Your task to perform on an android device: turn notification dots on Image 0: 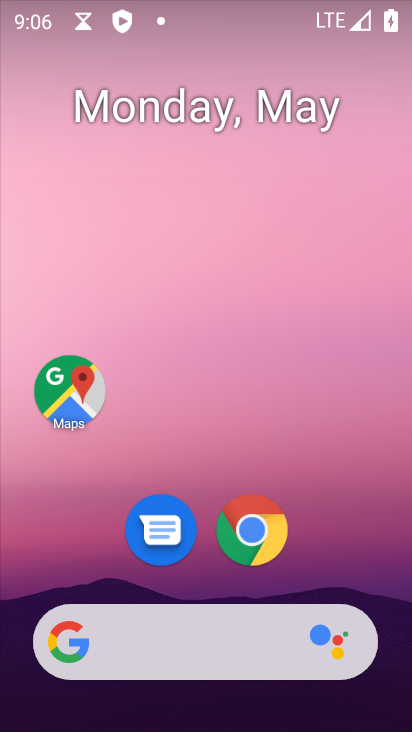
Step 0: drag from (312, 480) to (223, 23)
Your task to perform on an android device: turn notification dots on Image 1: 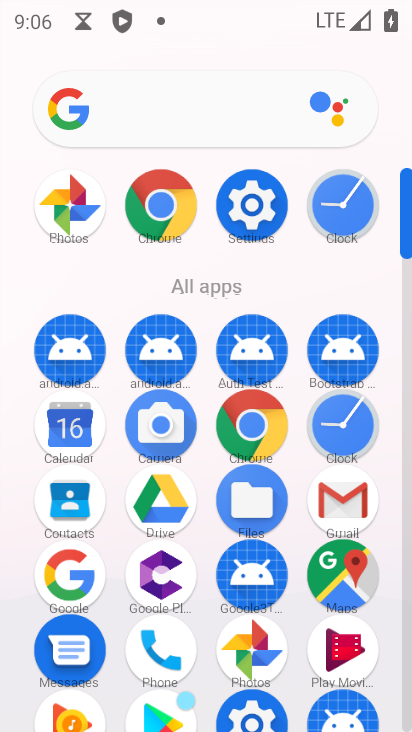
Step 1: click (254, 200)
Your task to perform on an android device: turn notification dots on Image 2: 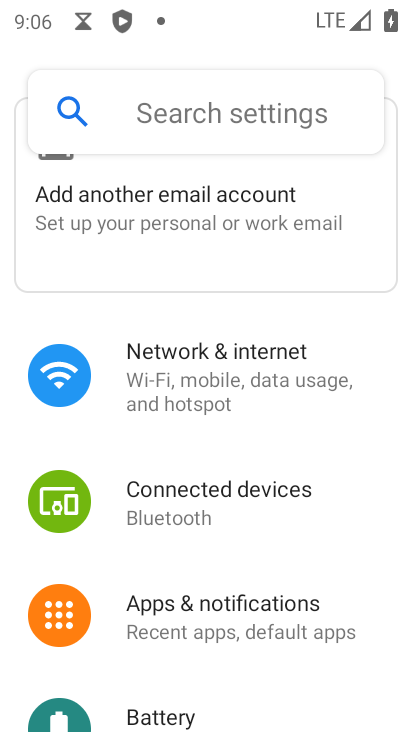
Step 2: click (199, 613)
Your task to perform on an android device: turn notification dots on Image 3: 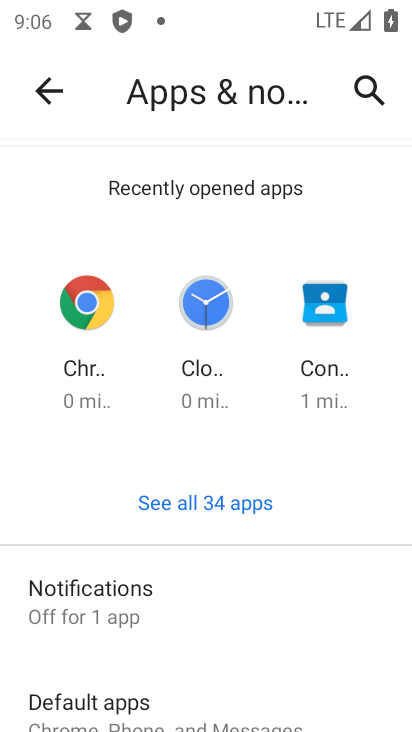
Step 3: click (175, 598)
Your task to perform on an android device: turn notification dots on Image 4: 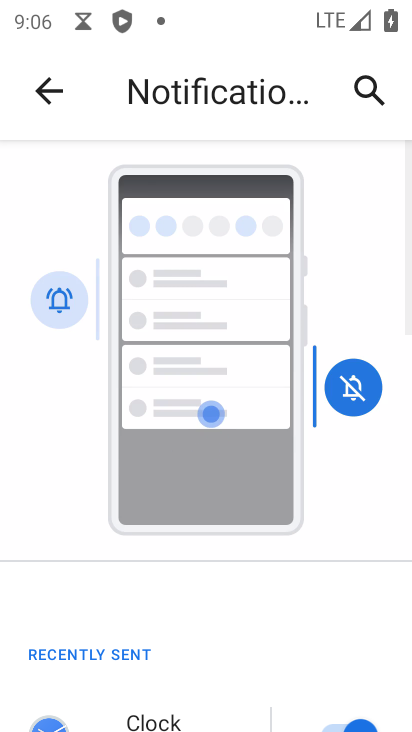
Step 4: drag from (271, 601) to (318, 107)
Your task to perform on an android device: turn notification dots on Image 5: 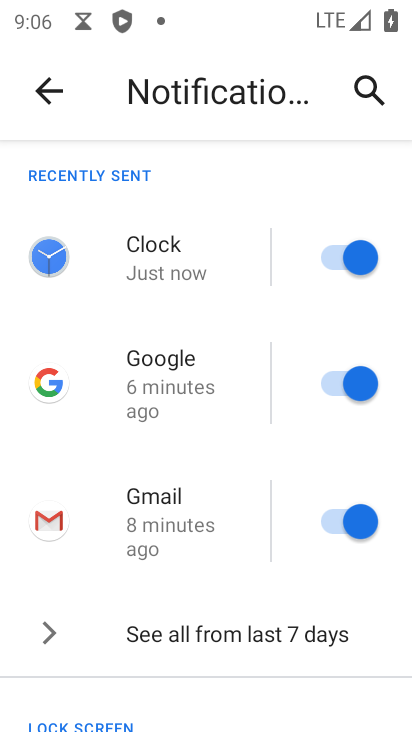
Step 5: drag from (190, 573) to (212, 141)
Your task to perform on an android device: turn notification dots on Image 6: 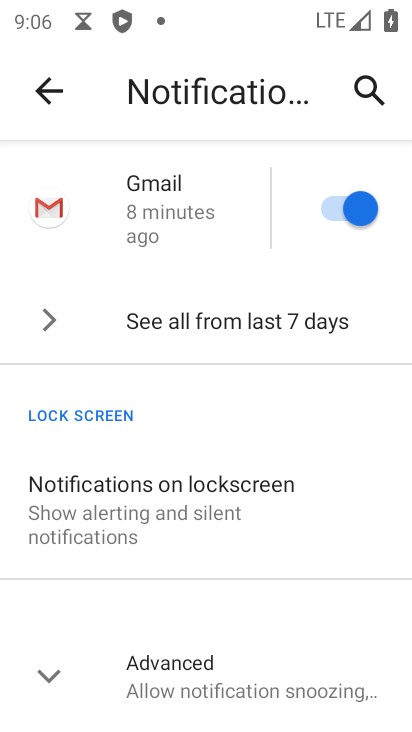
Step 6: click (178, 671)
Your task to perform on an android device: turn notification dots on Image 7: 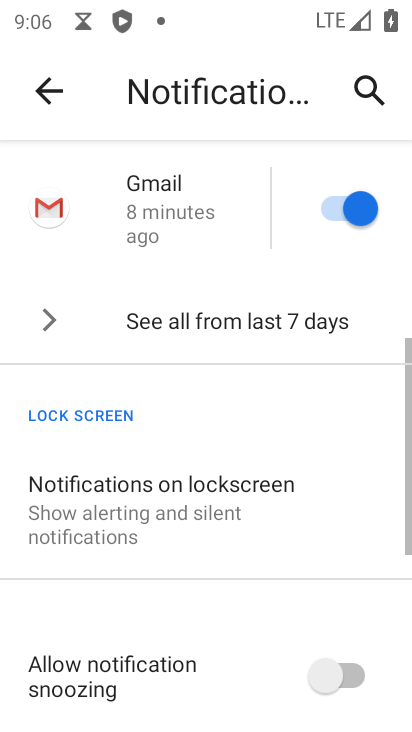
Step 7: task complete